Your task to perform on an android device: toggle priority inbox in the gmail app Image 0: 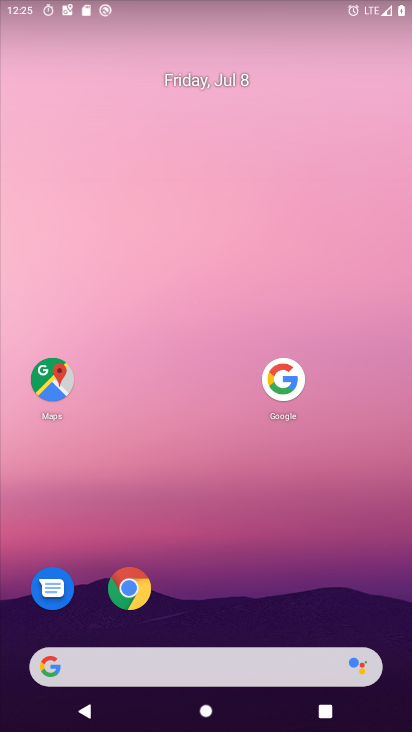
Step 0: press home button
Your task to perform on an android device: toggle priority inbox in the gmail app Image 1: 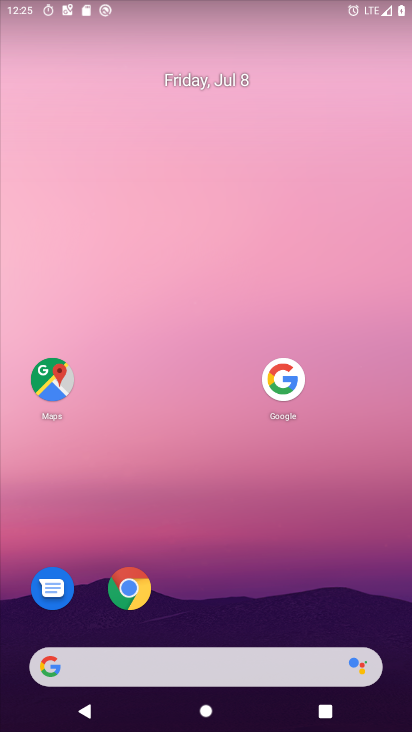
Step 1: drag from (163, 665) to (171, 138)
Your task to perform on an android device: toggle priority inbox in the gmail app Image 2: 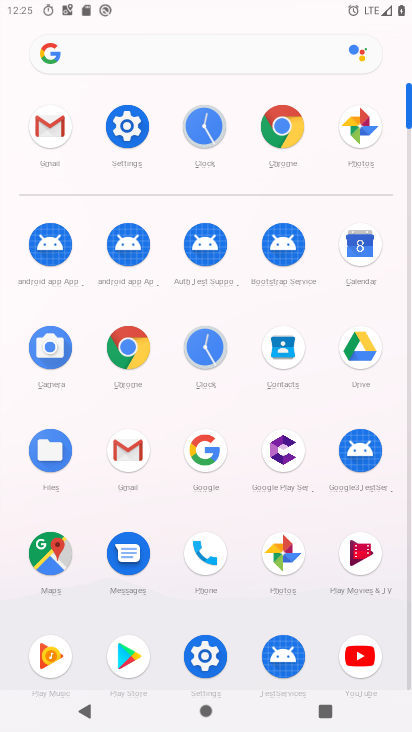
Step 2: click (46, 128)
Your task to perform on an android device: toggle priority inbox in the gmail app Image 3: 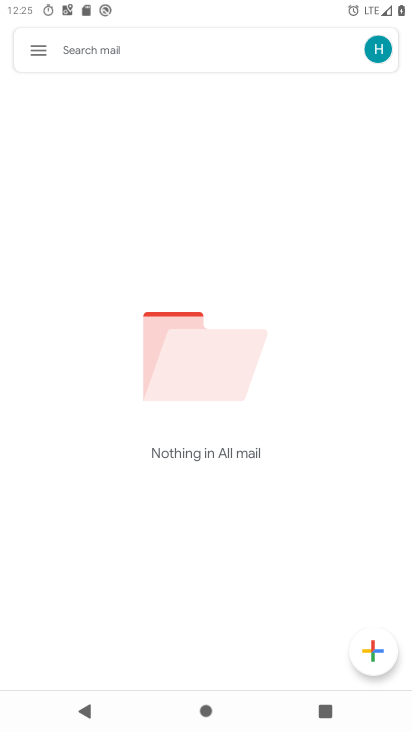
Step 3: click (34, 45)
Your task to perform on an android device: toggle priority inbox in the gmail app Image 4: 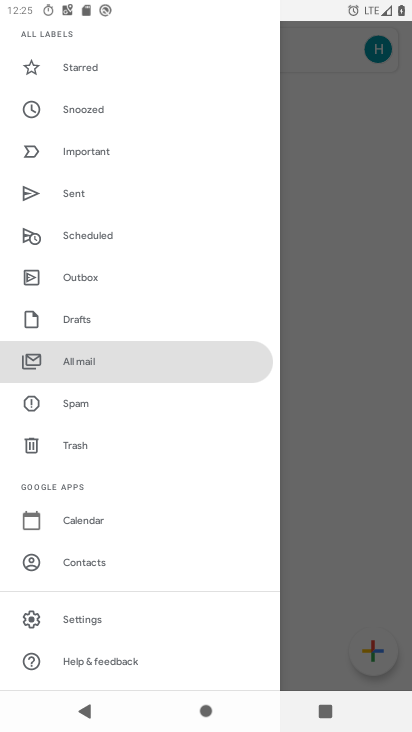
Step 4: click (85, 615)
Your task to perform on an android device: toggle priority inbox in the gmail app Image 5: 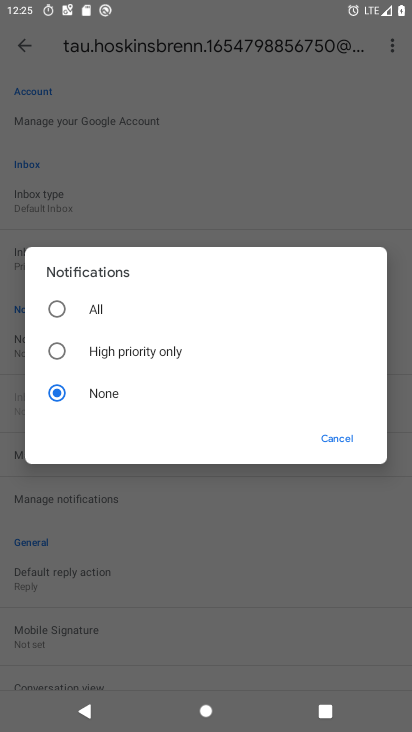
Step 5: click (347, 442)
Your task to perform on an android device: toggle priority inbox in the gmail app Image 6: 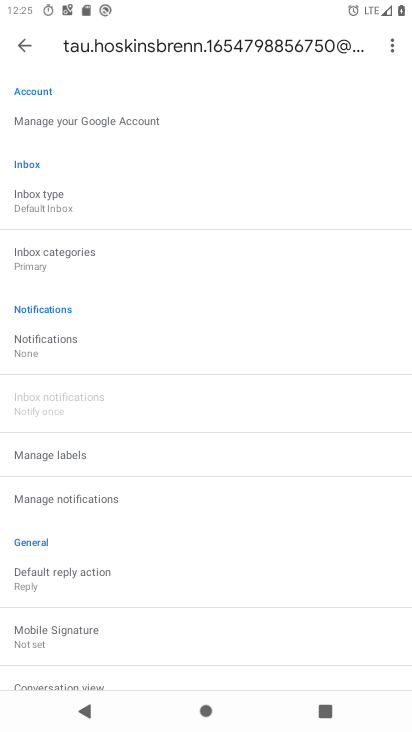
Step 6: click (33, 192)
Your task to perform on an android device: toggle priority inbox in the gmail app Image 7: 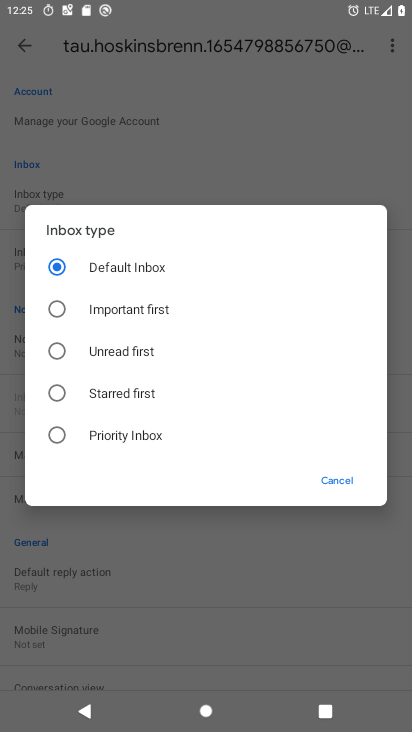
Step 7: click (54, 428)
Your task to perform on an android device: toggle priority inbox in the gmail app Image 8: 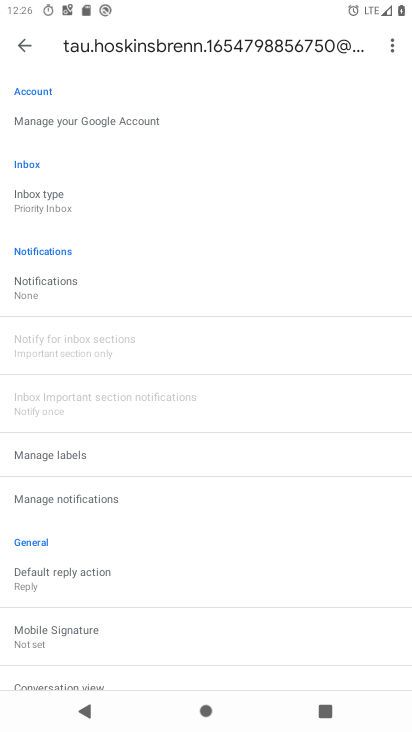
Step 8: task complete